Your task to perform on an android device: Open Android settings Image 0: 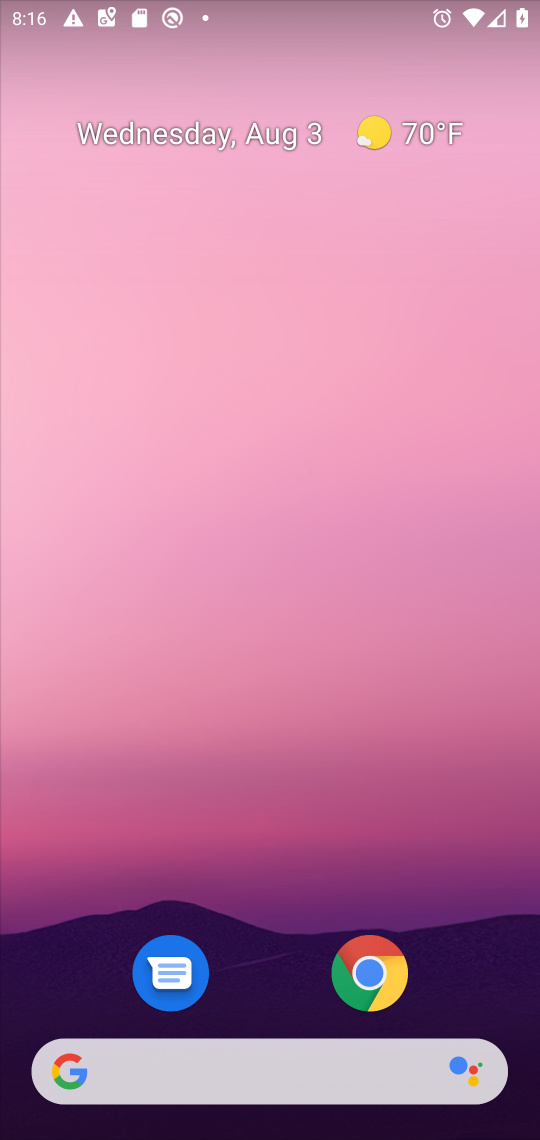
Step 0: click (290, 55)
Your task to perform on an android device: Open Android settings Image 1: 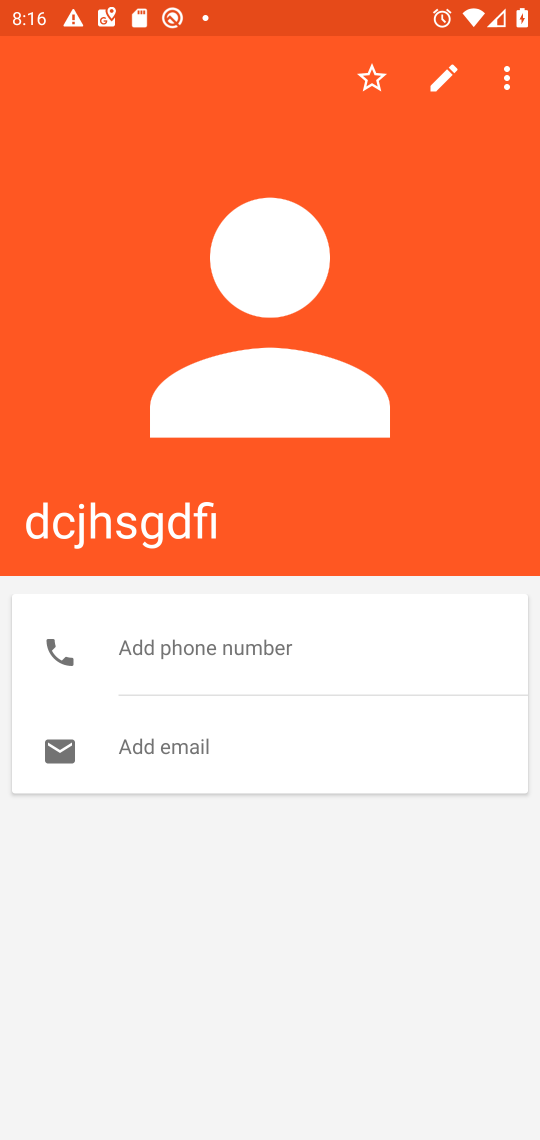
Step 1: press home button
Your task to perform on an android device: Open Android settings Image 2: 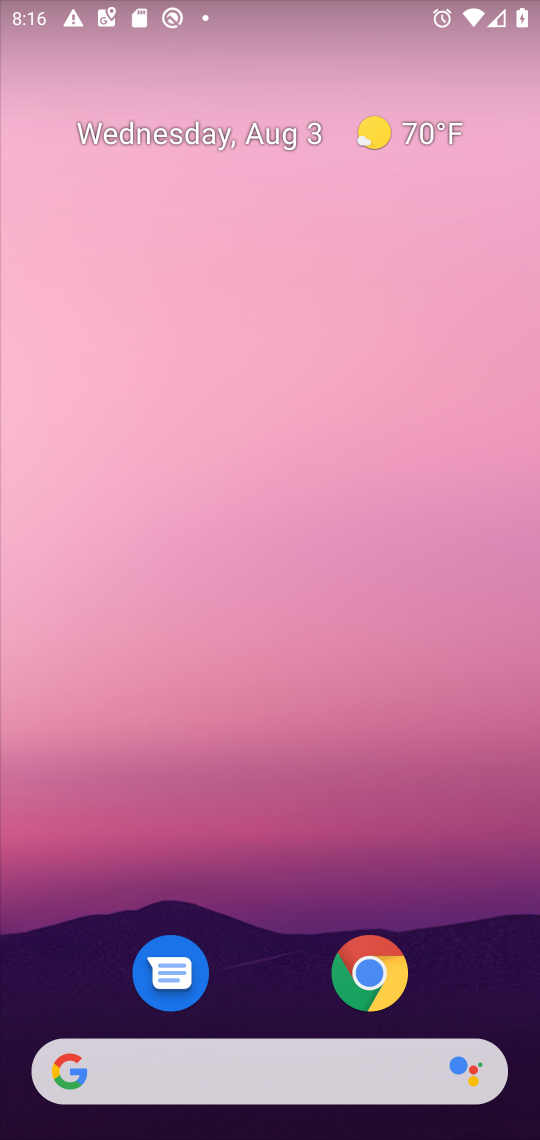
Step 2: drag from (279, 989) to (311, 42)
Your task to perform on an android device: Open Android settings Image 3: 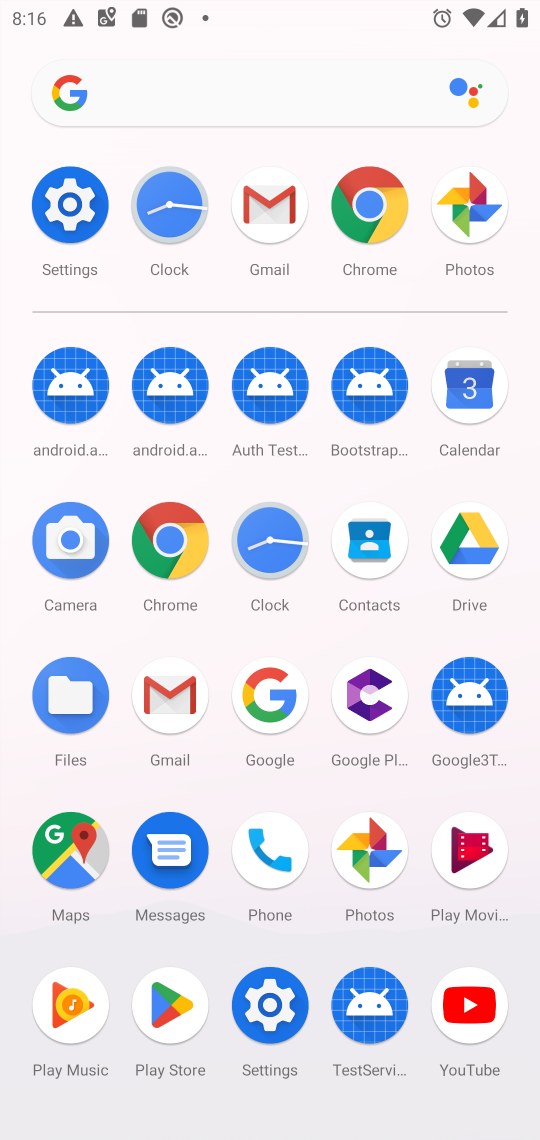
Step 3: click (269, 991)
Your task to perform on an android device: Open Android settings Image 4: 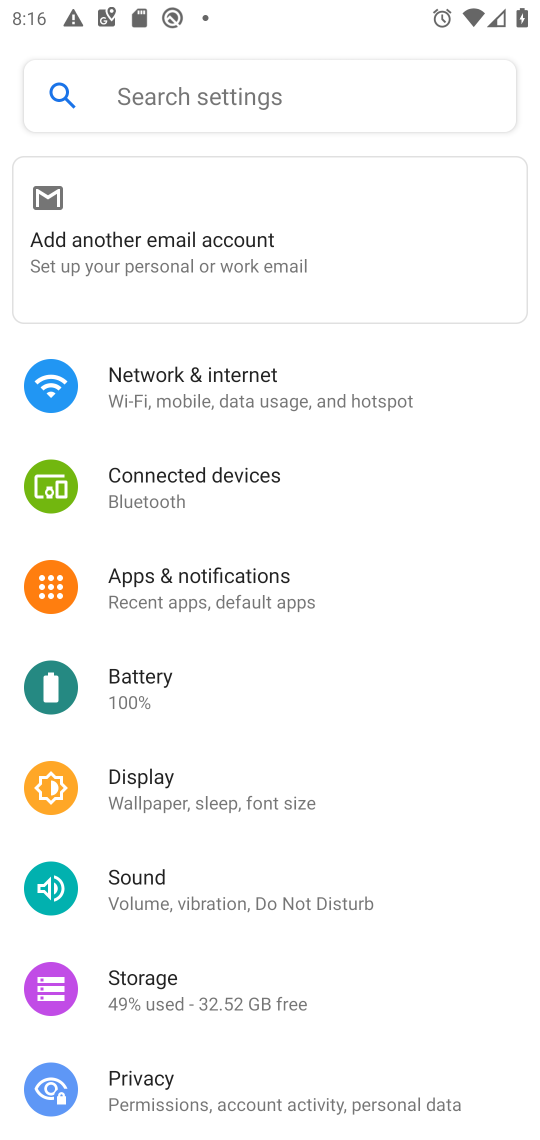
Step 4: drag from (270, 1046) to (262, 105)
Your task to perform on an android device: Open Android settings Image 5: 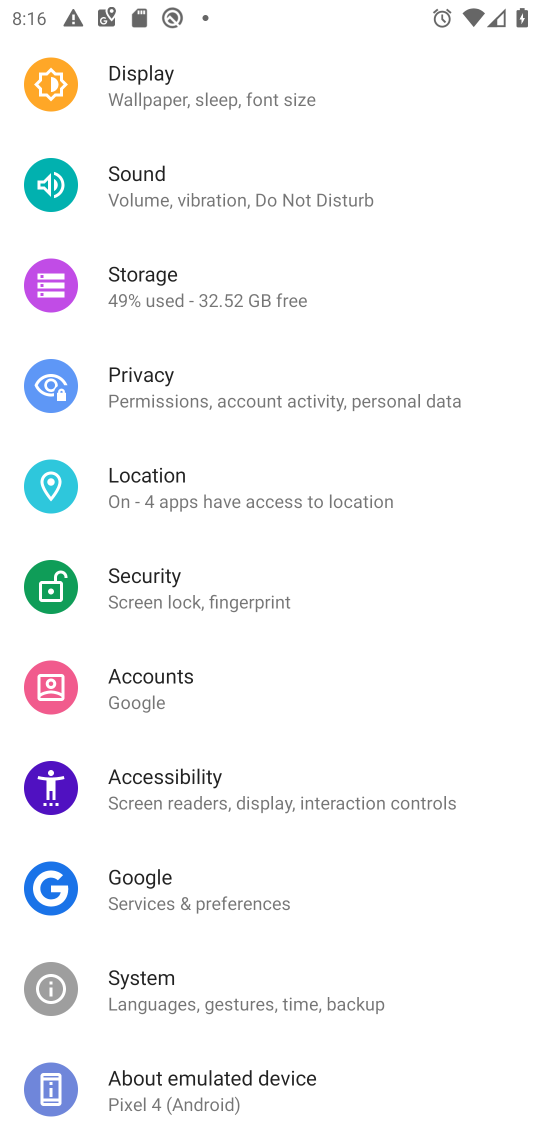
Step 5: click (284, 1082)
Your task to perform on an android device: Open Android settings Image 6: 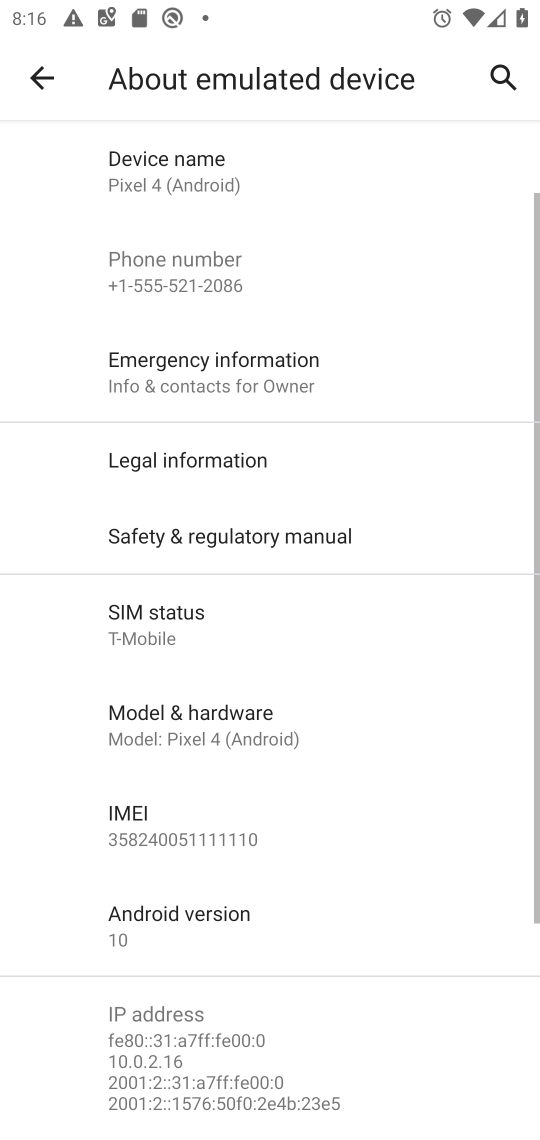
Step 6: click (174, 936)
Your task to perform on an android device: Open Android settings Image 7: 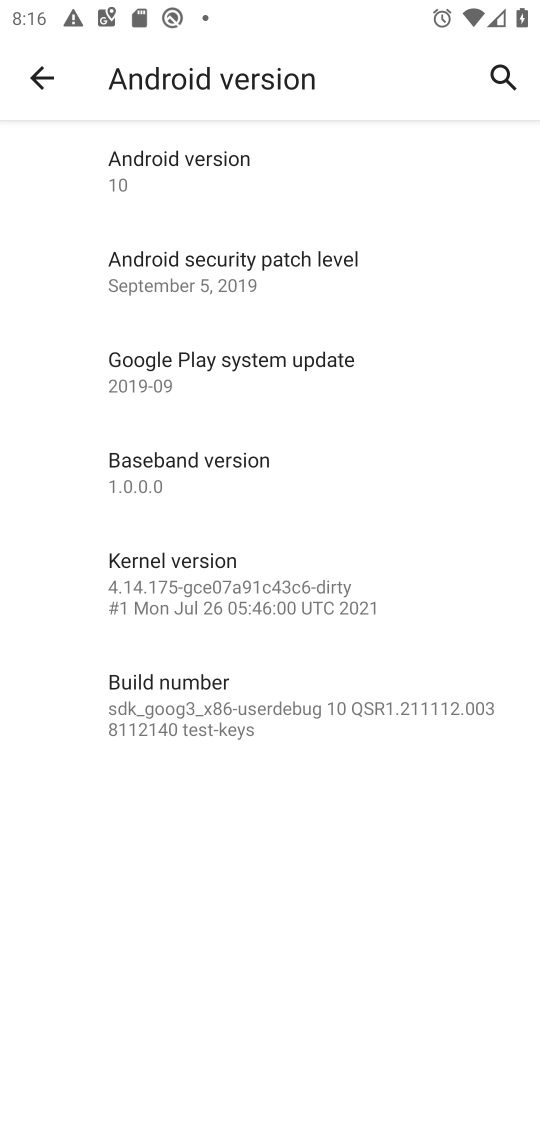
Step 7: task complete